Your task to perform on an android device: Go to Google maps Image 0: 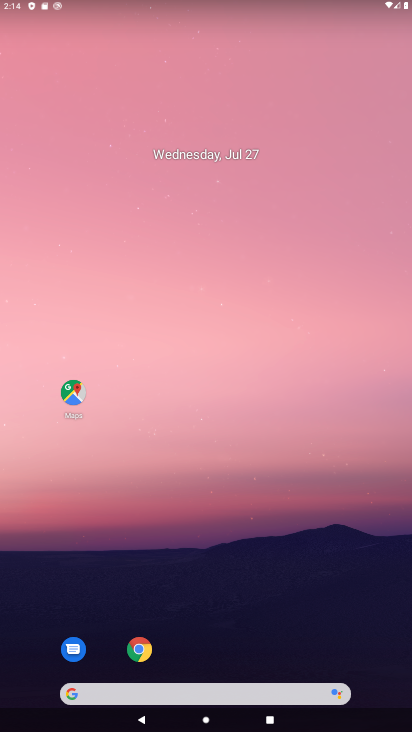
Step 0: drag from (360, 621) to (141, 12)
Your task to perform on an android device: Go to Google maps Image 1: 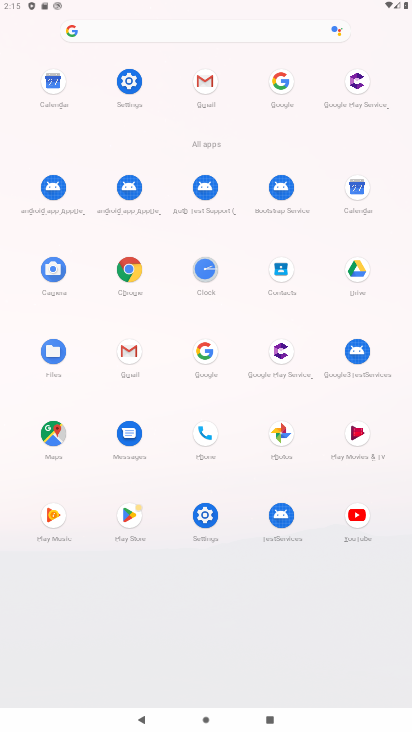
Step 1: click (58, 444)
Your task to perform on an android device: Go to Google maps Image 2: 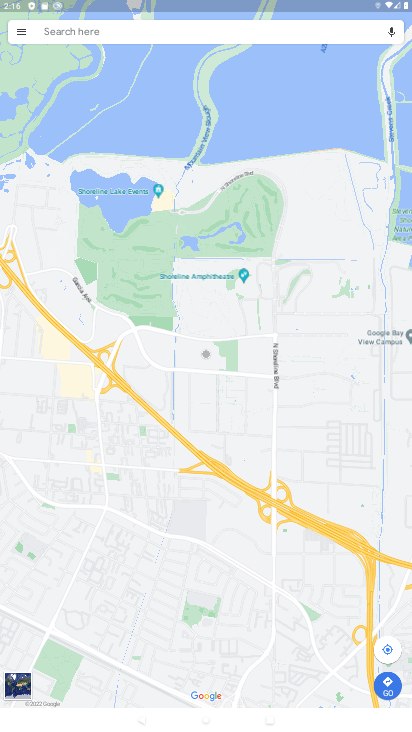
Step 2: task complete